Your task to perform on an android device: open app "Messages" (install if not already installed) Image 0: 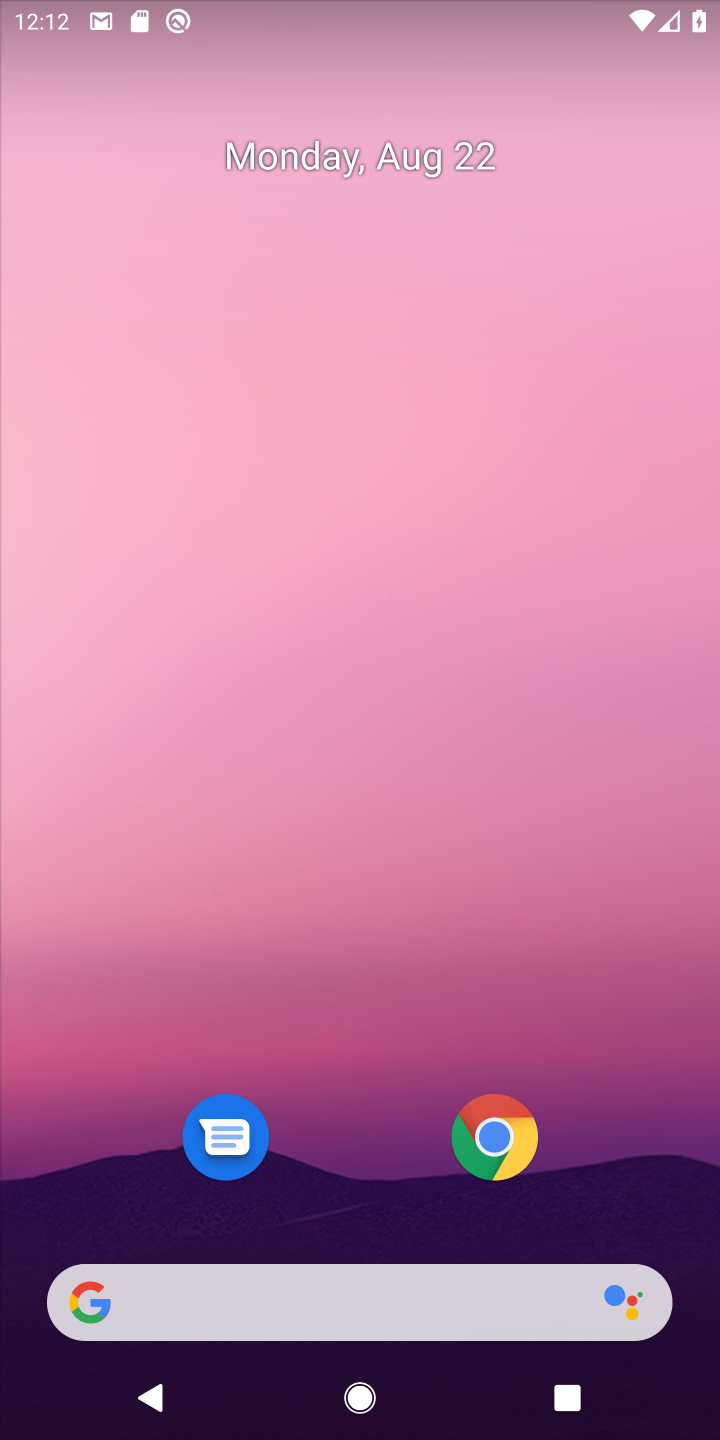
Step 0: drag from (669, 1234) to (617, 175)
Your task to perform on an android device: open app "Messages" (install if not already installed) Image 1: 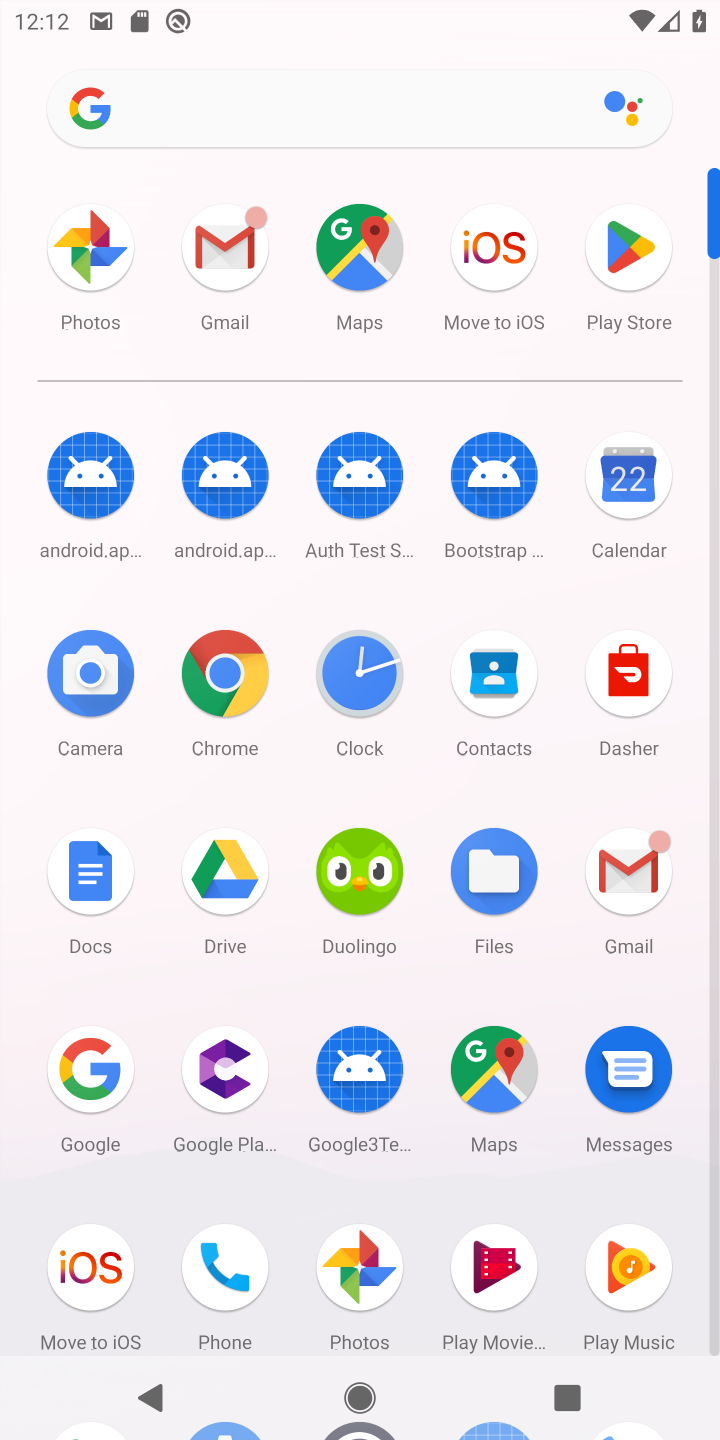
Step 1: drag from (557, 1202) to (545, 636)
Your task to perform on an android device: open app "Messages" (install if not already installed) Image 2: 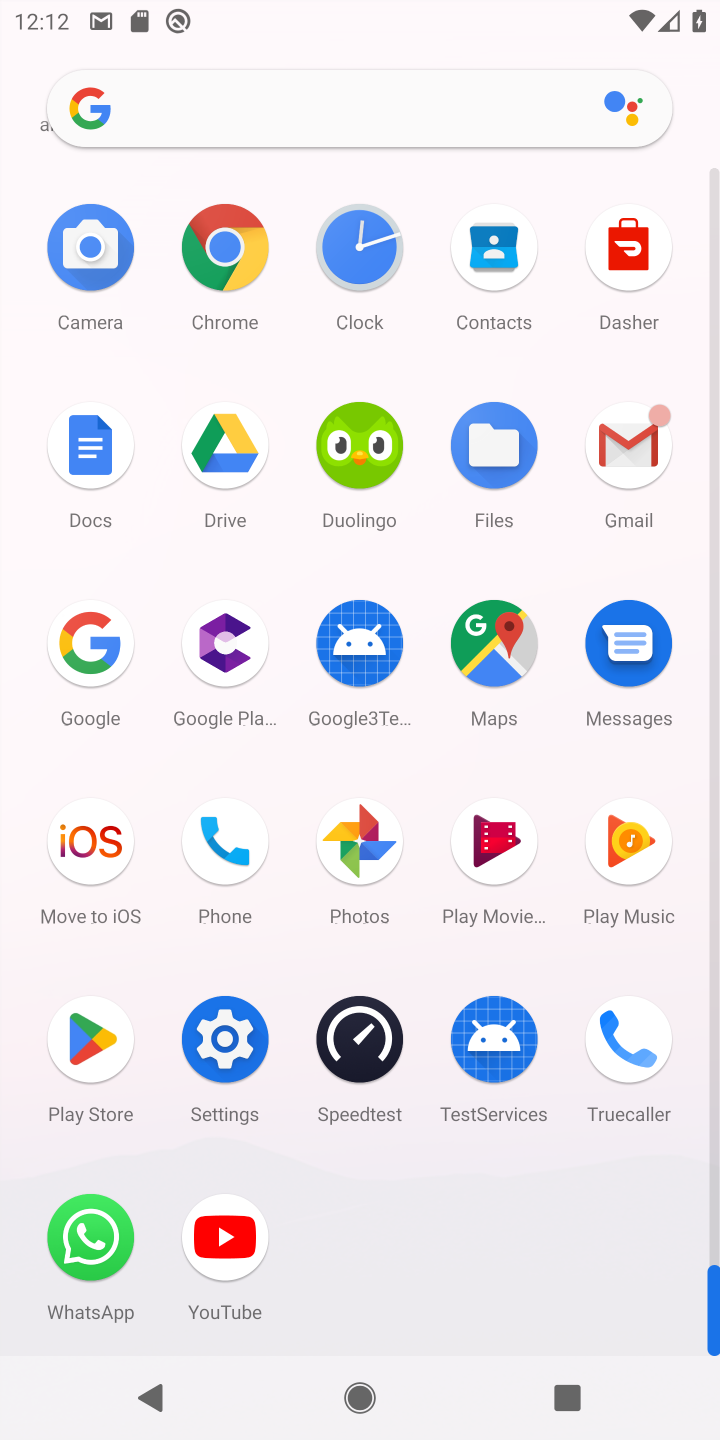
Step 2: click (93, 1031)
Your task to perform on an android device: open app "Messages" (install if not already installed) Image 3: 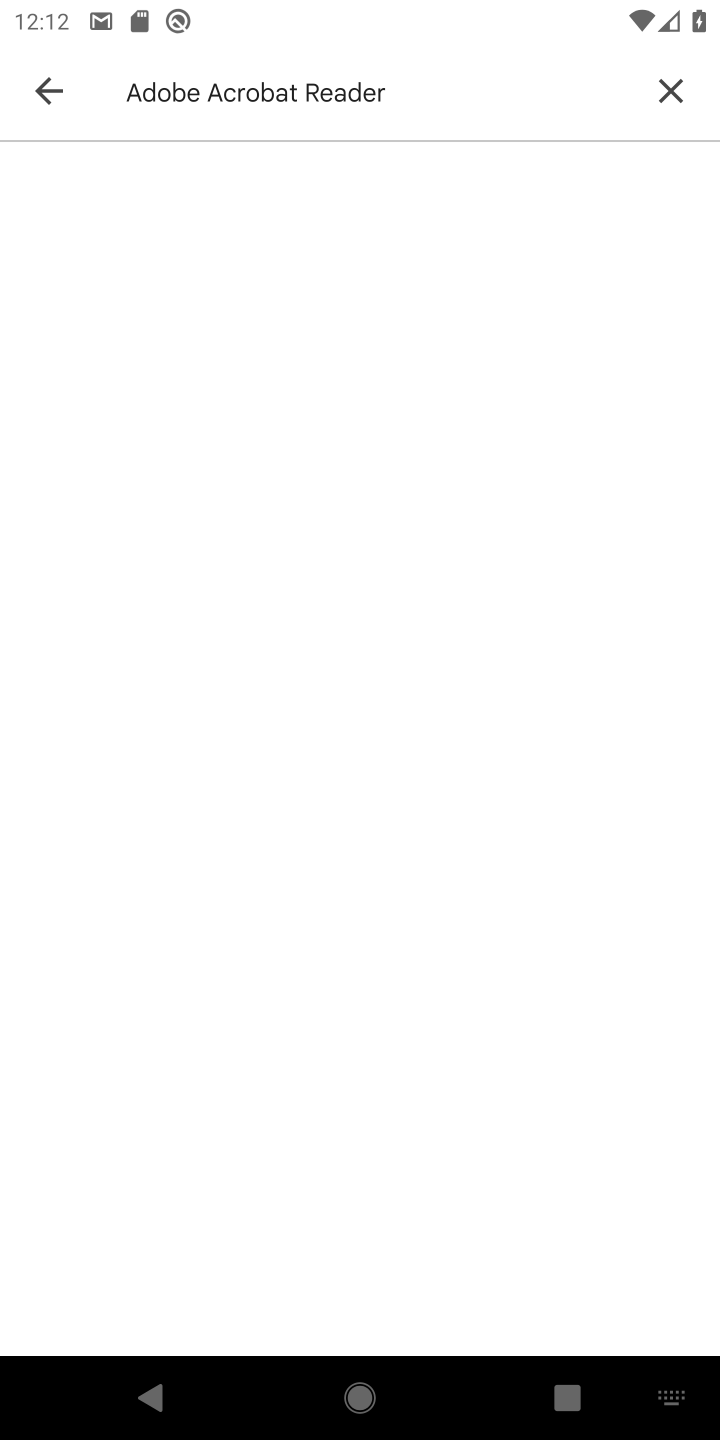
Step 3: click (672, 86)
Your task to perform on an android device: open app "Messages" (install if not already installed) Image 4: 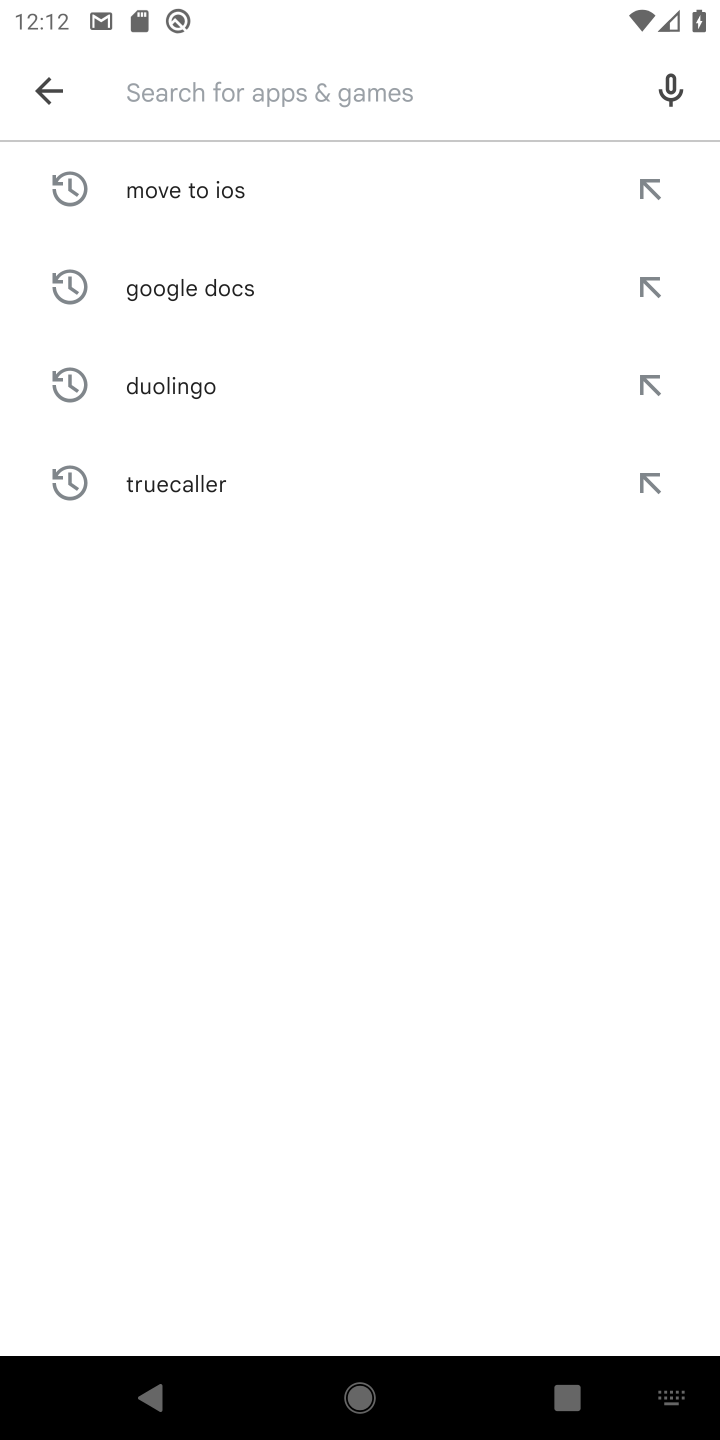
Step 4: type "Messages"
Your task to perform on an android device: open app "Messages" (install if not already installed) Image 5: 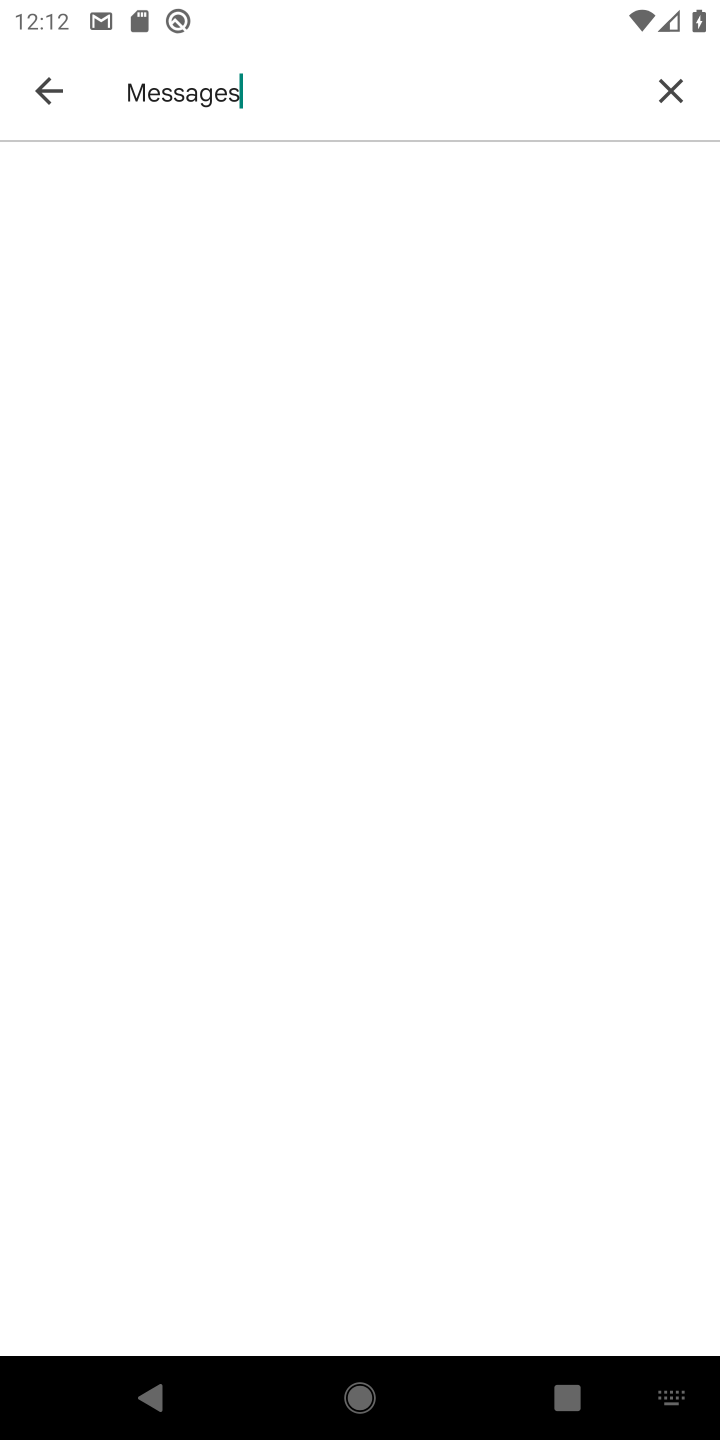
Step 5: task complete